Your task to perform on an android device: Go to eBay Image 0: 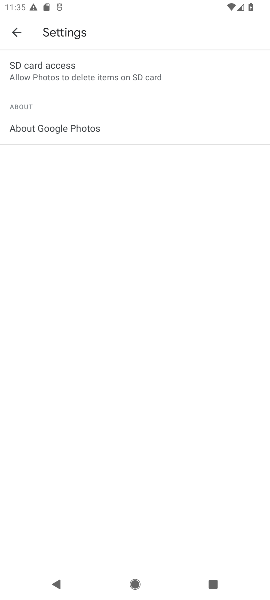
Step 0: press home button
Your task to perform on an android device: Go to eBay Image 1: 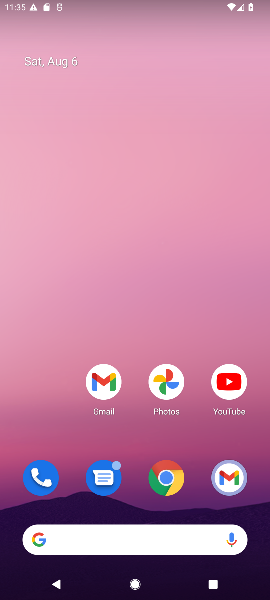
Step 1: click (160, 483)
Your task to perform on an android device: Go to eBay Image 2: 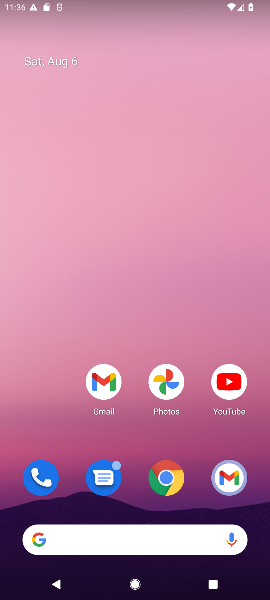
Step 2: drag from (141, 529) to (125, 262)
Your task to perform on an android device: Go to eBay Image 3: 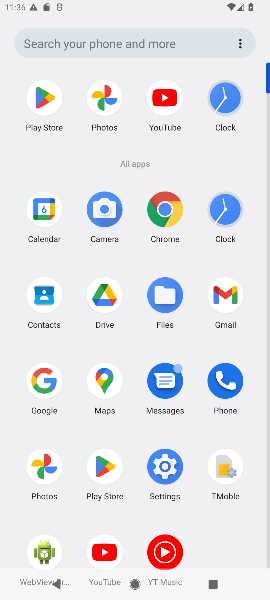
Step 3: click (39, 392)
Your task to perform on an android device: Go to eBay Image 4: 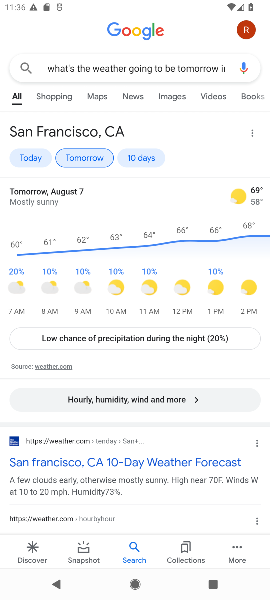
Step 4: click (167, 64)
Your task to perform on an android device: Go to eBay Image 5: 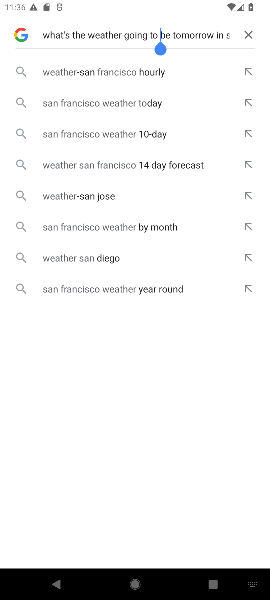
Step 5: click (244, 37)
Your task to perform on an android device: Go to eBay Image 6: 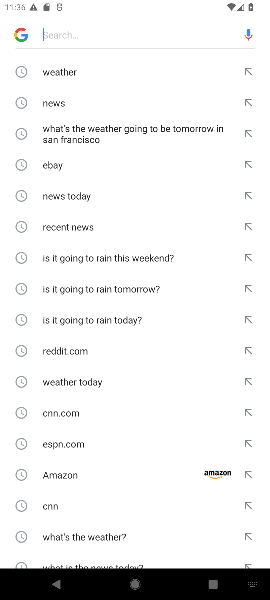
Step 6: click (73, 171)
Your task to perform on an android device: Go to eBay Image 7: 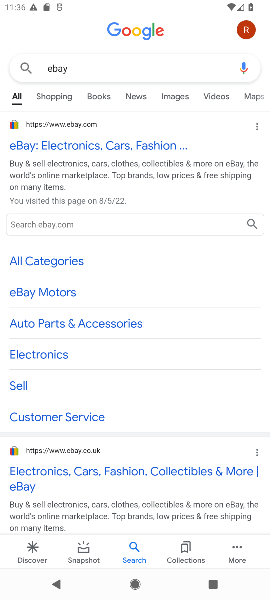
Step 7: click (68, 152)
Your task to perform on an android device: Go to eBay Image 8: 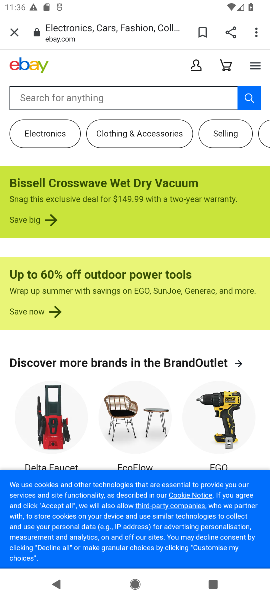
Step 8: task complete